Your task to perform on an android device: Open Chrome and go to settings Image 0: 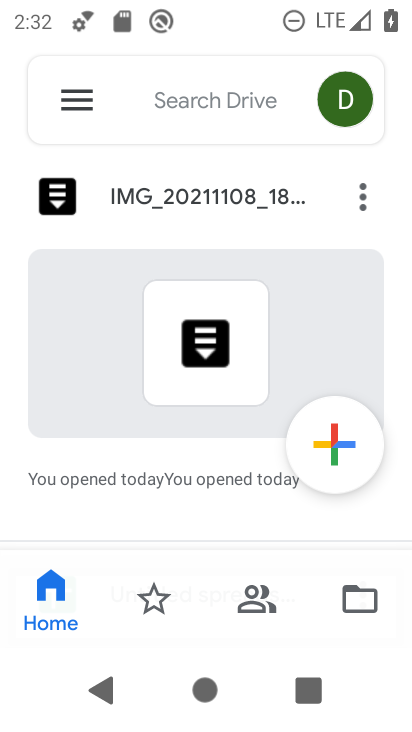
Step 0: press home button
Your task to perform on an android device: Open Chrome and go to settings Image 1: 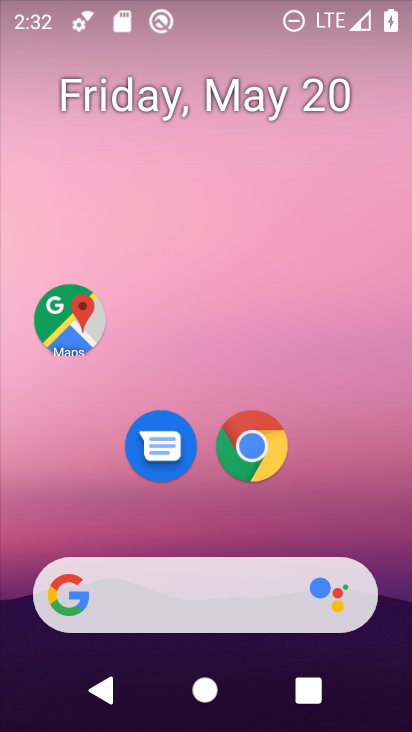
Step 1: click (276, 452)
Your task to perform on an android device: Open Chrome and go to settings Image 2: 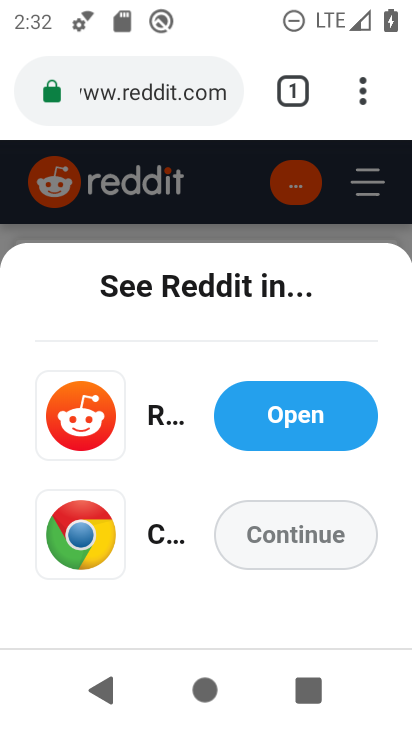
Step 2: click (360, 95)
Your task to perform on an android device: Open Chrome and go to settings Image 3: 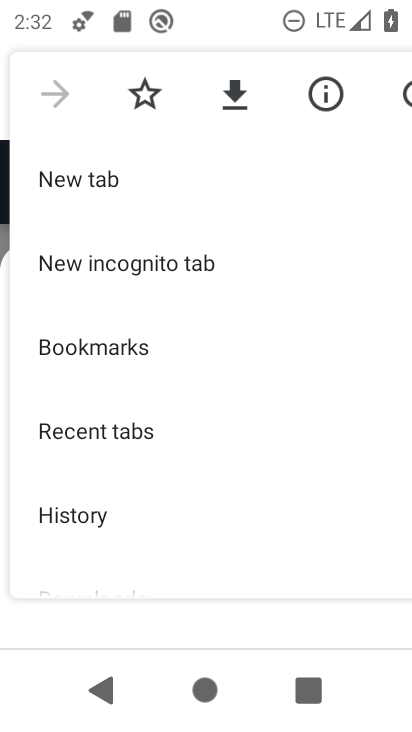
Step 3: drag from (245, 463) to (241, 127)
Your task to perform on an android device: Open Chrome and go to settings Image 4: 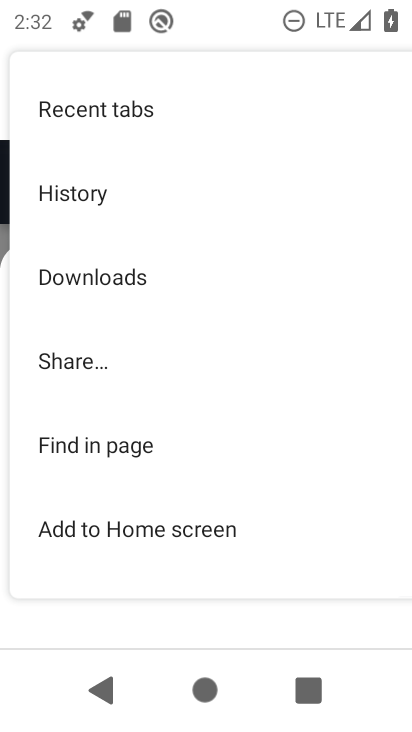
Step 4: drag from (194, 421) to (197, 92)
Your task to perform on an android device: Open Chrome and go to settings Image 5: 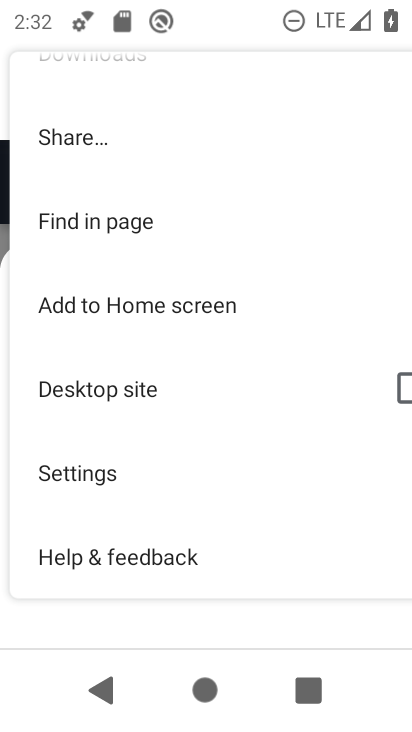
Step 5: click (82, 479)
Your task to perform on an android device: Open Chrome and go to settings Image 6: 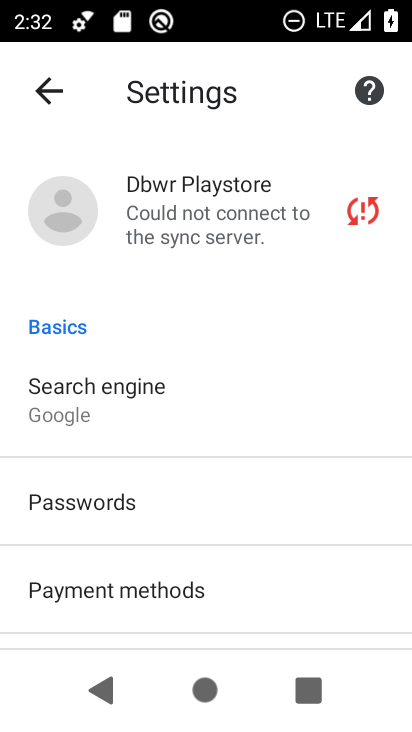
Step 6: task complete